Your task to perform on an android device: allow cookies in the chrome app Image 0: 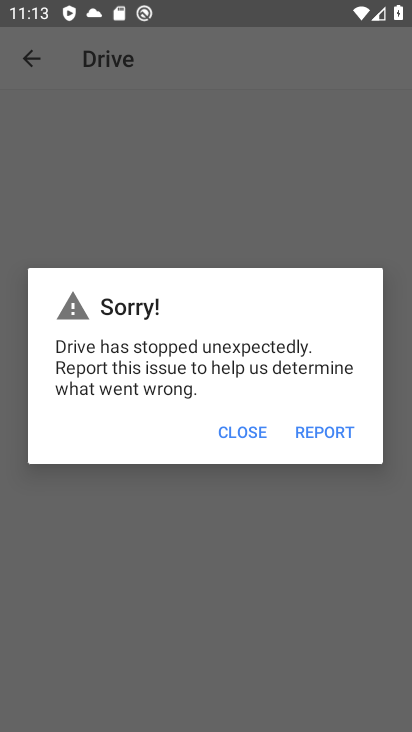
Step 0: press home button
Your task to perform on an android device: allow cookies in the chrome app Image 1: 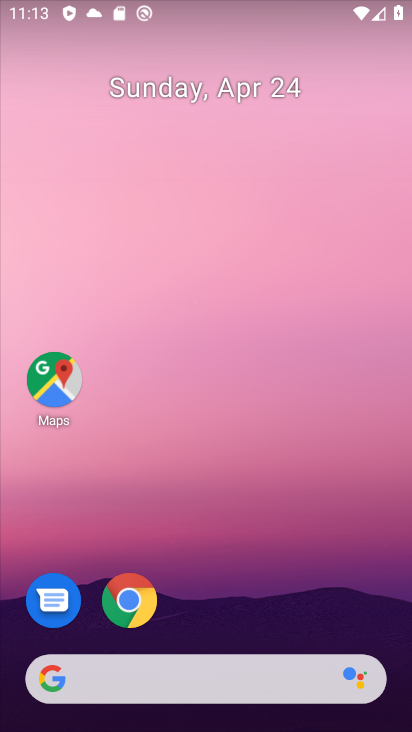
Step 1: click (129, 595)
Your task to perform on an android device: allow cookies in the chrome app Image 2: 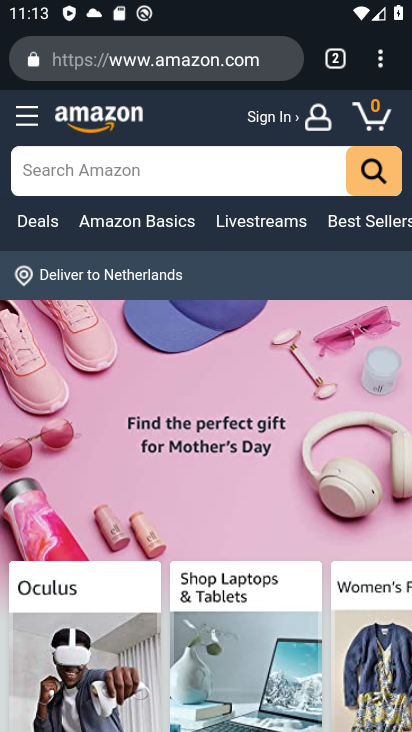
Step 2: click (379, 55)
Your task to perform on an android device: allow cookies in the chrome app Image 3: 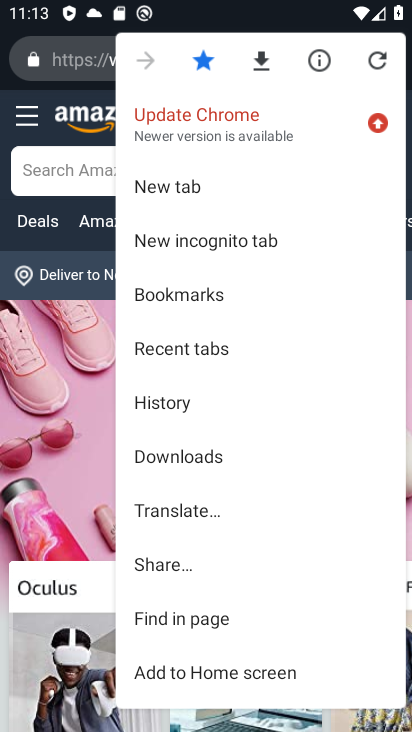
Step 3: drag from (299, 498) to (260, 226)
Your task to perform on an android device: allow cookies in the chrome app Image 4: 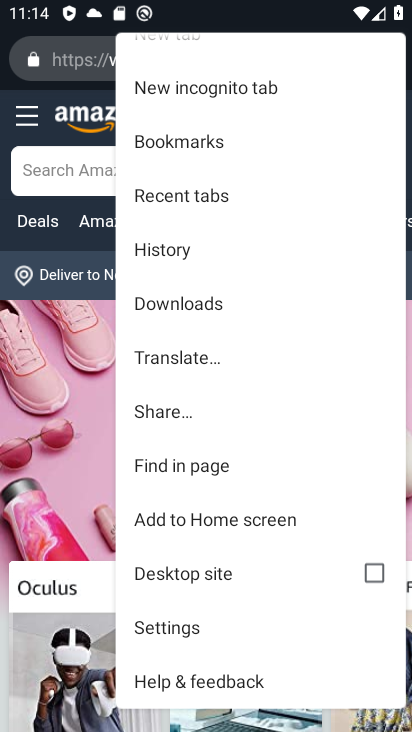
Step 4: click (185, 626)
Your task to perform on an android device: allow cookies in the chrome app Image 5: 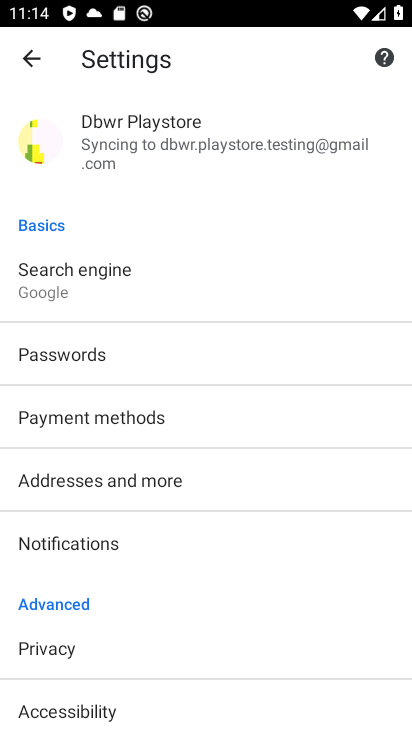
Step 5: drag from (185, 557) to (91, 137)
Your task to perform on an android device: allow cookies in the chrome app Image 6: 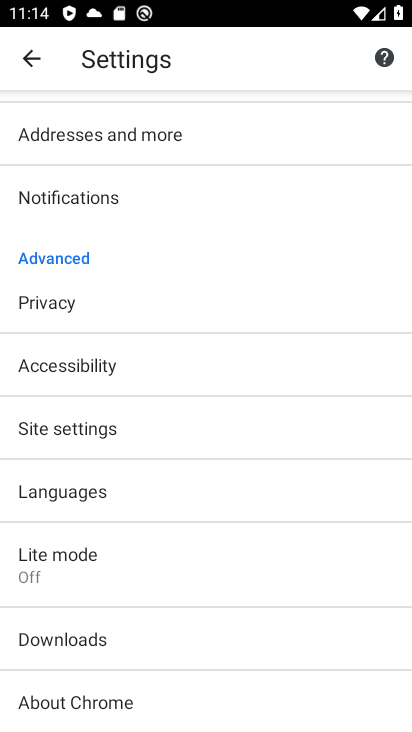
Step 6: click (54, 431)
Your task to perform on an android device: allow cookies in the chrome app Image 7: 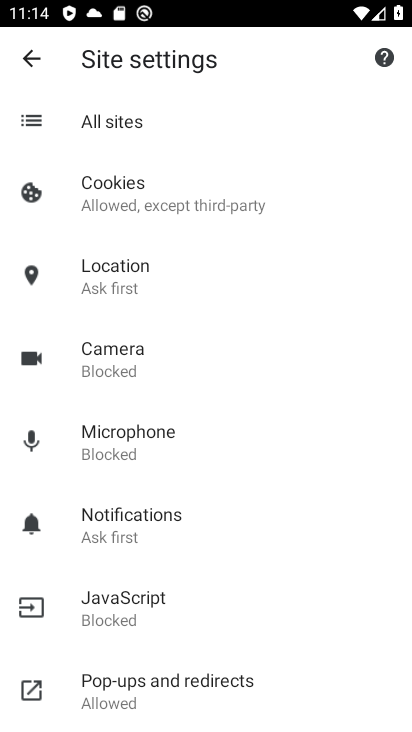
Step 7: click (125, 177)
Your task to perform on an android device: allow cookies in the chrome app Image 8: 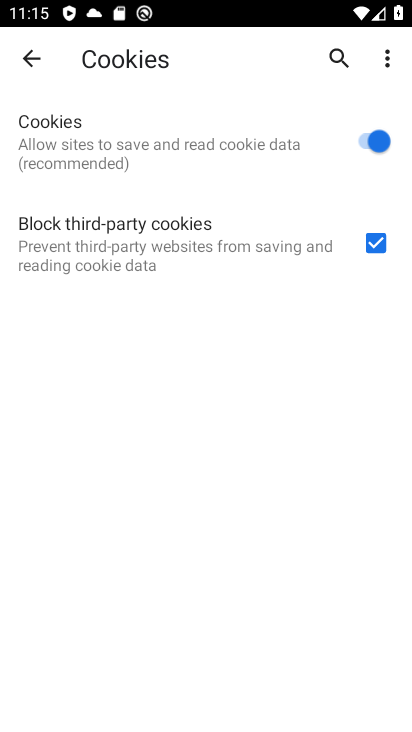
Step 8: task complete